Your task to perform on an android device: toggle notification dots Image 0: 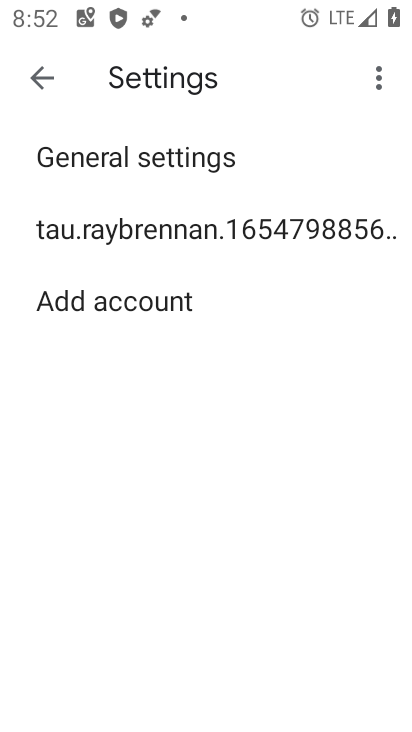
Step 0: press home button
Your task to perform on an android device: toggle notification dots Image 1: 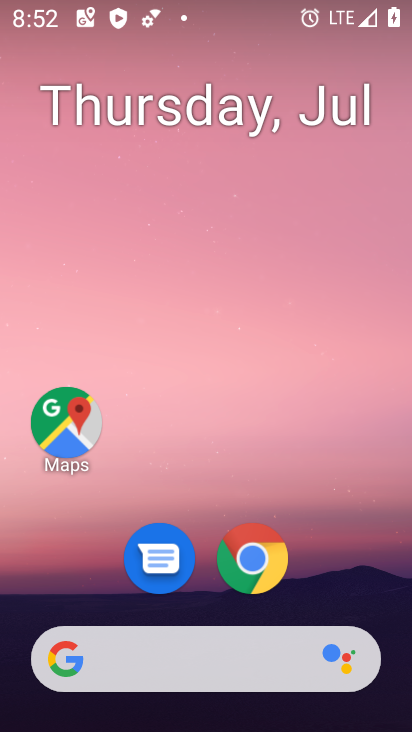
Step 1: drag from (185, 630) to (206, 188)
Your task to perform on an android device: toggle notification dots Image 2: 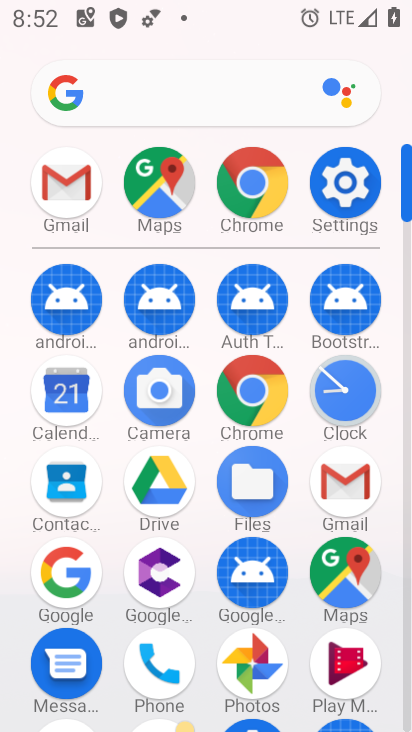
Step 2: click (353, 188)
Your task to perform on an android device: toggle notification dots Image 3: 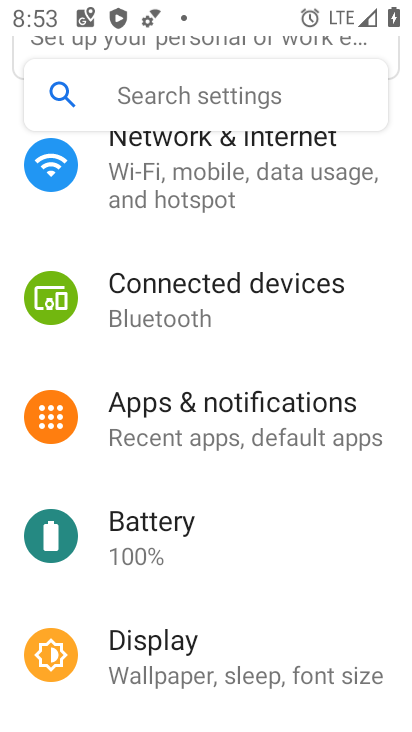
Step 3: click (201, 413)
Your task to perform on an android device: toggle notification dots Image 4: 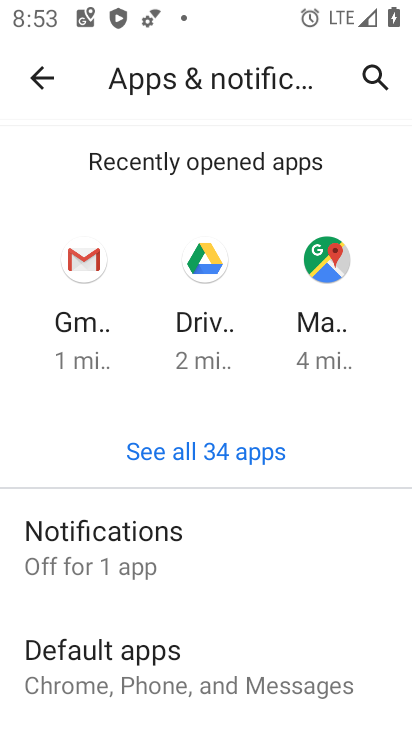
Step 4: click (144, 553)
Your task to perform on an android device: toggle notification dots Image 5: 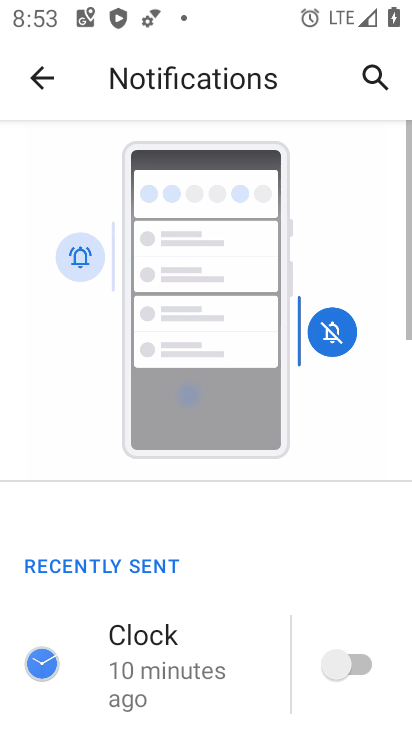
Step 5: drag from (161, 427) to (207, 158)
Your task to perform on an android device: toggle notification dots Image 6: 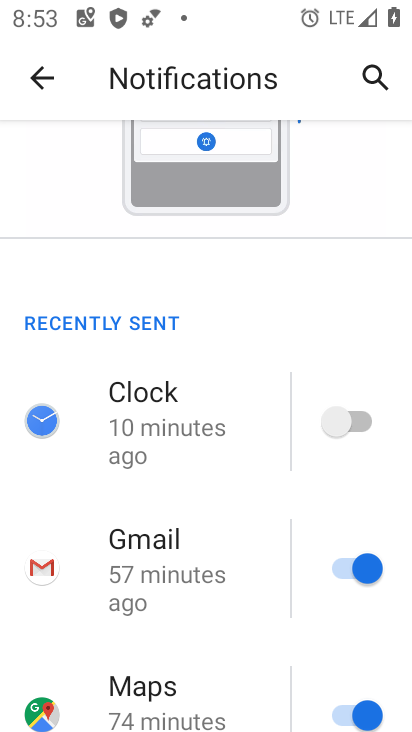
Step 6: drag from (181, 479) to (207, 270)
Your task to perform on an android device: toggle notification dots Image 7: 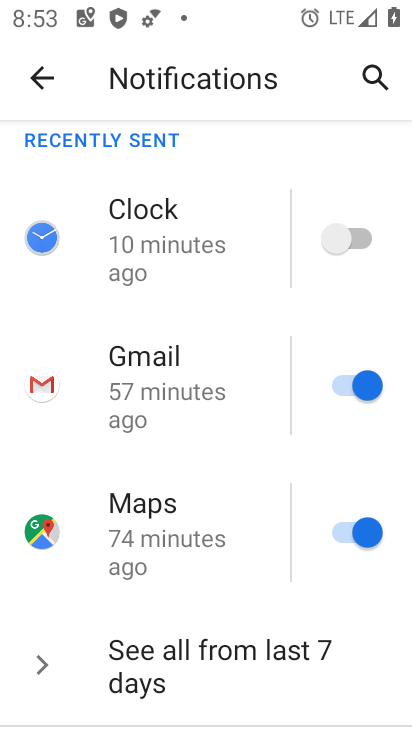
Step 7: drag from (197, 571) to (271, 237)
Your task to perform on an android device: toggle notification dots Image 8: 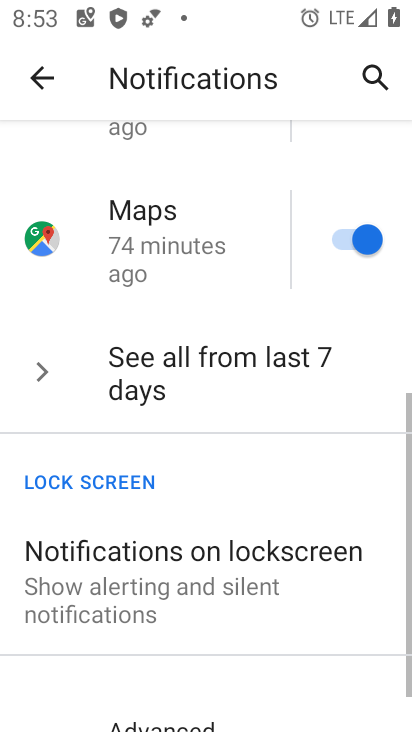
Step 8: click (278, 201)
Your task to perform on an android device: toggle notification dots Image 9: 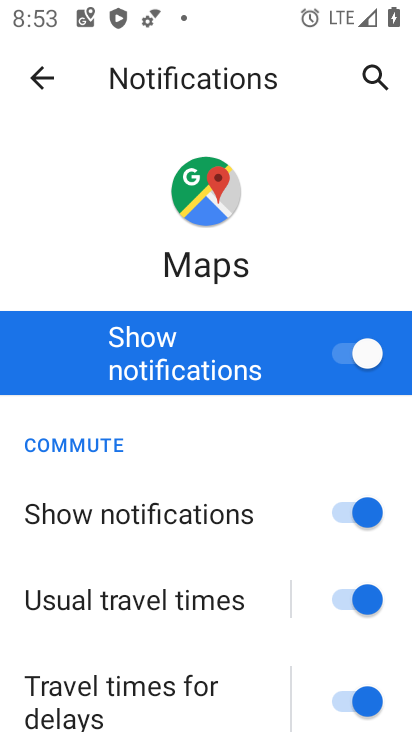
Step 9: drag from (157, 551) to (246, 247)
Your task to perform on an android device: toggle notification dots Image 10: 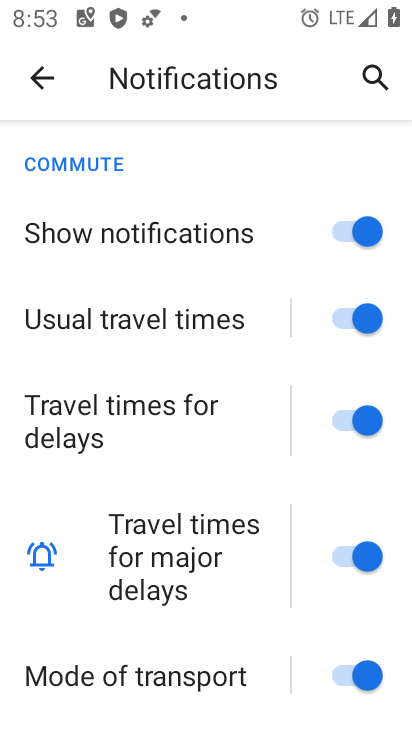
Step 10: drag from (161, 605) to (210, 227)
Your task to perform on an android device: toggle notification dots Image 11: 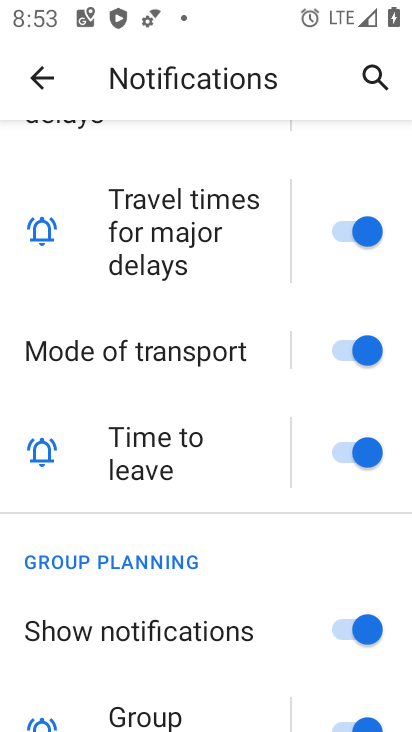
Step 11: drag from (152, 623) to (217, 337)
Your task to perform on an android device: toggle notification dots Image 12: 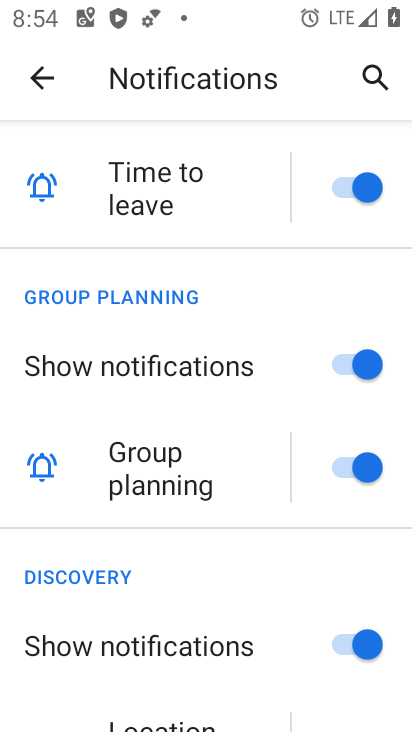
Step 12: drag from (142, 636) to (216, 326)
Your task to perform on an android device: toggle notification dots Image 13: 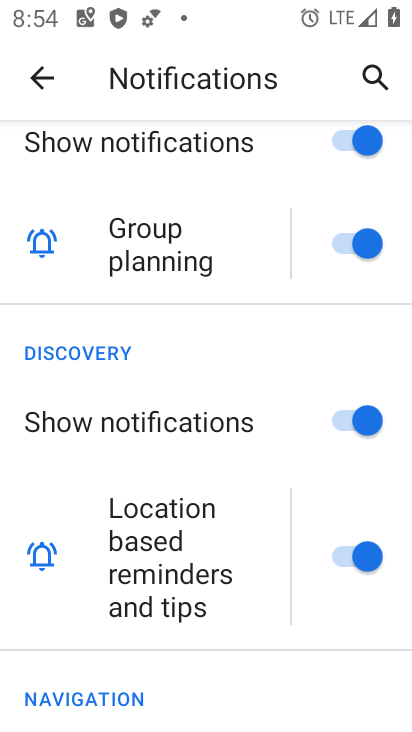
Step 13: click (49, 94)
Your task to perform on an android device: toggle notification dots Image 14: 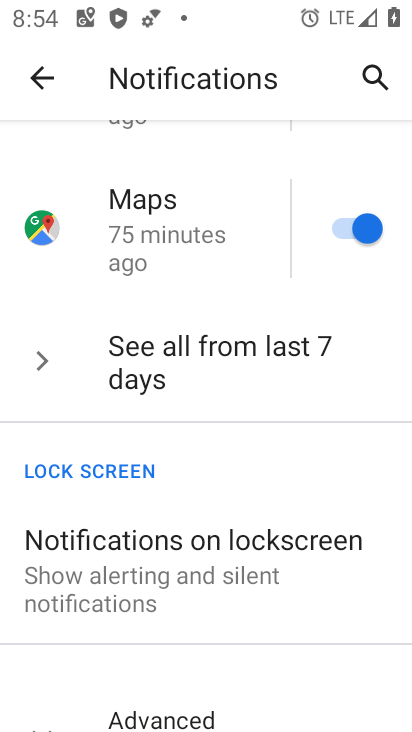
Step 14: drag from (197, 610) to (281, 261)
Your task to perform on an android device: toggle notification dots Image 15: 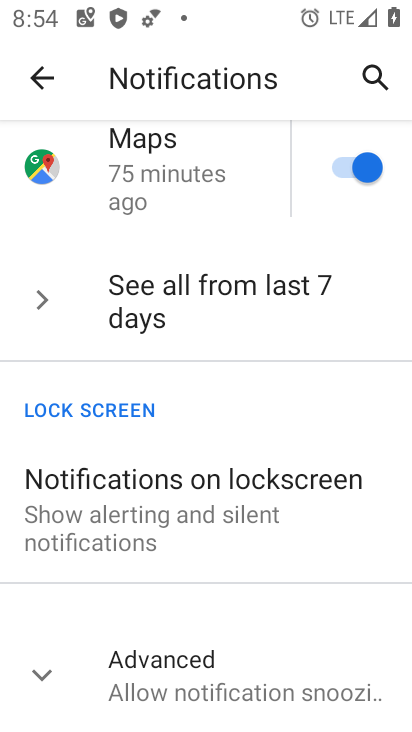
Step 15: click (188, 693)
Your task to perform on an android device: toggle notification dots Image 16: 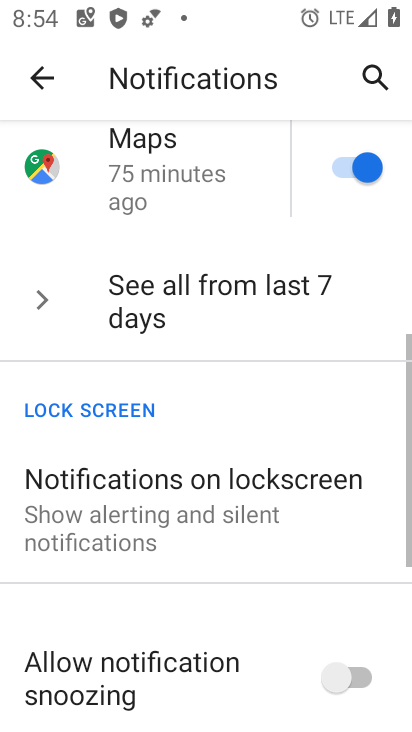
Step 16: drag from (190, 619) to (221, 204)
Your task to perform on an android device: toggle notification dots Image 17: 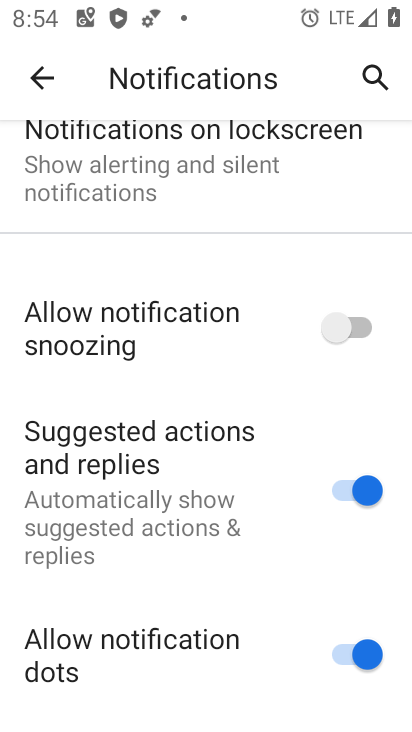
Step 17: click (327, 656)
Your task to perform on an android device: toggle notification dots Image 18: 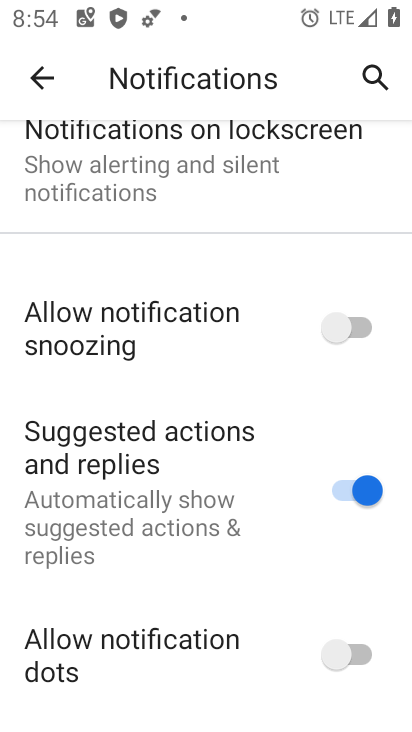
Step 18: task complete